Your task to perform on an android device: add a contact Image 0: 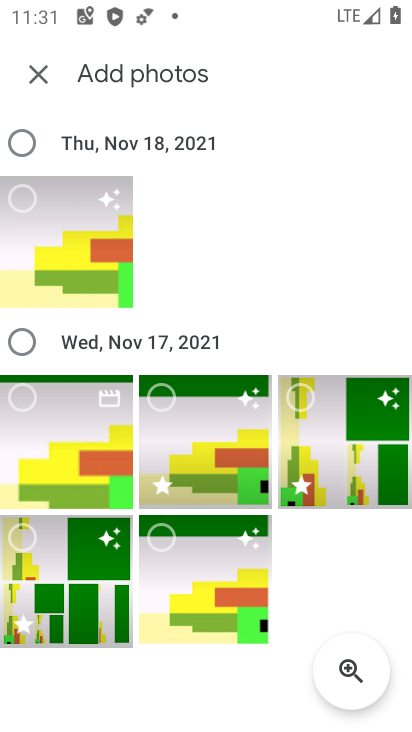
Step 0: press home button
Your task to perform on an android device: add a contact Image 1: 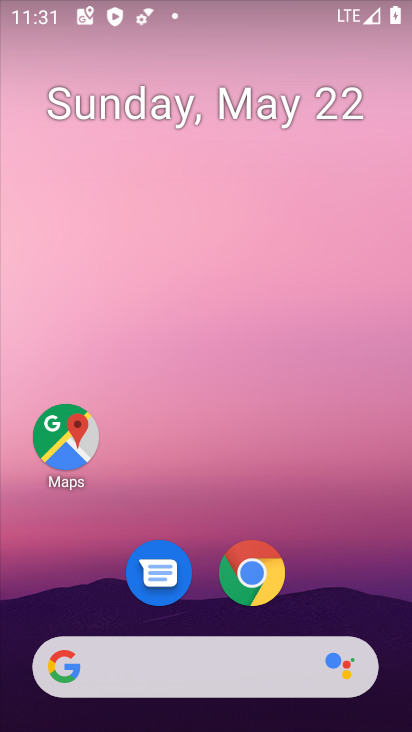
Step 1: drag from (212, 606) to (284, 108)
Your task to perform on an android device: add a contact Image 2: 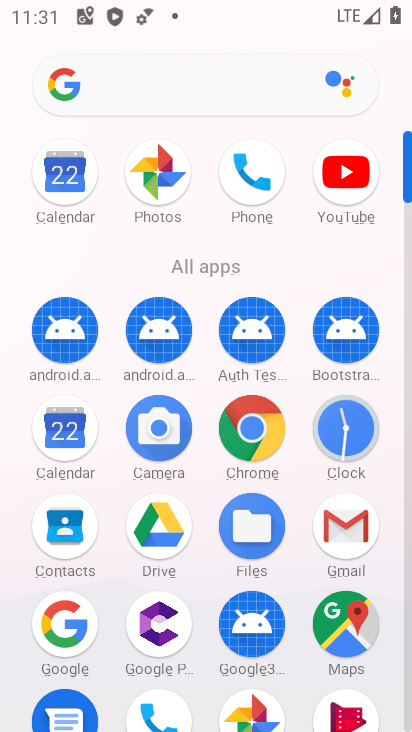
Step 2: click (59, 532)
Your task to perform on an android device: add a contact Image 3: 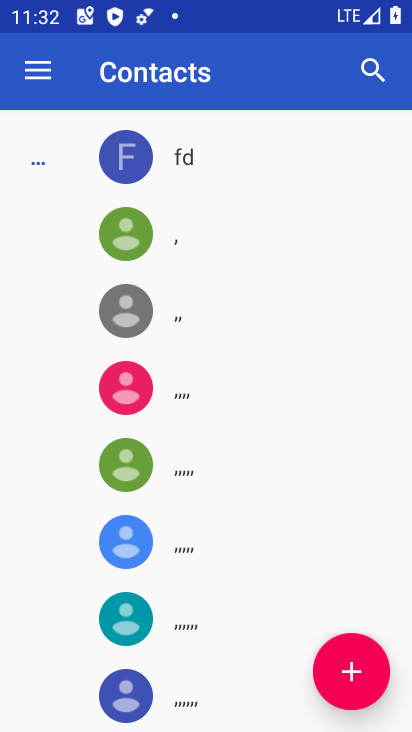
Step 3: click (343, 681)
Your task to perform on an android device: add a contact Image 4: 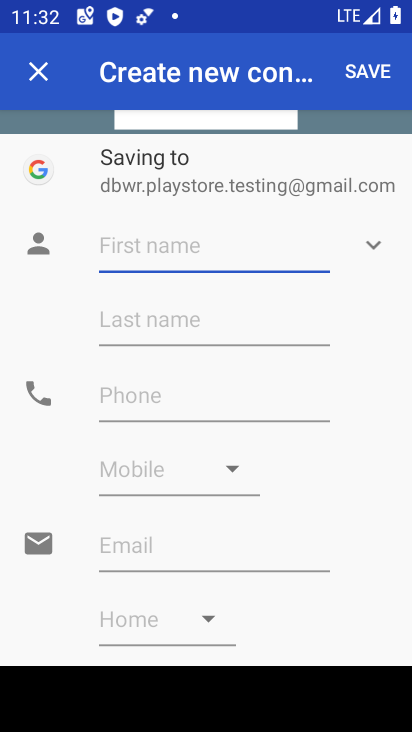
Step 4: type "zxcvbnm"
Your task to perform on an android device: add a contact Image 5: 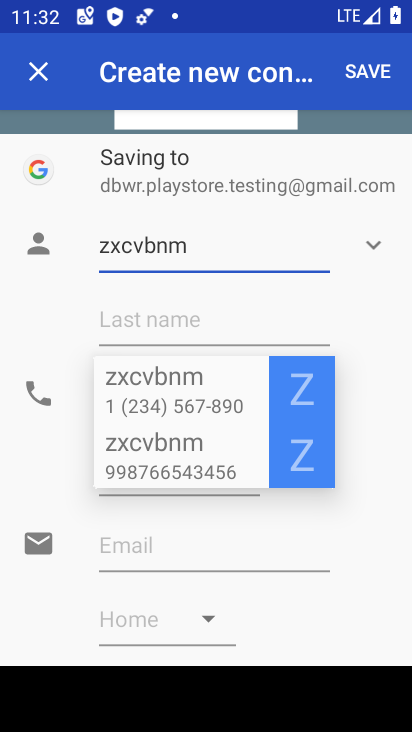
Step 5: click (81, 346)
Your task to perform on an android device: add a contact Image 6: 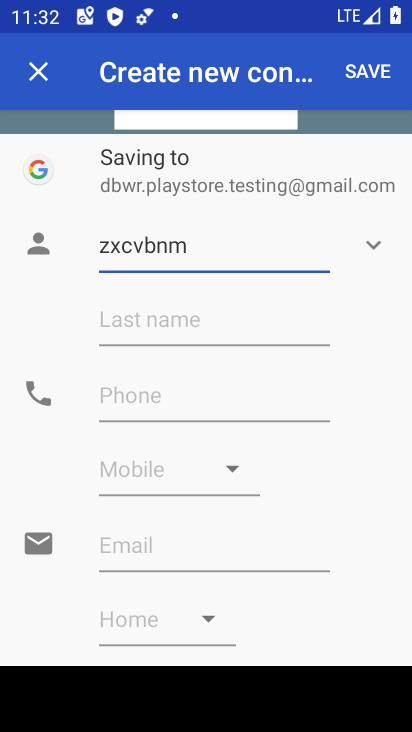
Step 6: click (176, 412)
Your task to perform on an android device: add a contact Image 7: 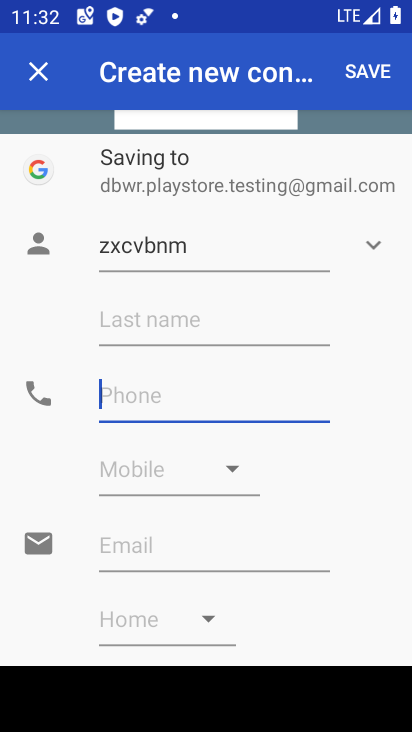
Step 7: type "9876543210"
Your task to perform on an android device: add a contact Image 8: 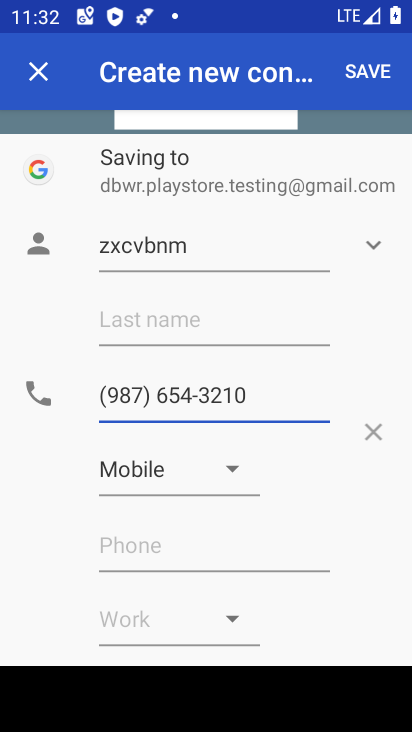
Step 8: click (383, 75)
Your task to perform on an android device: add a contact Image 9: 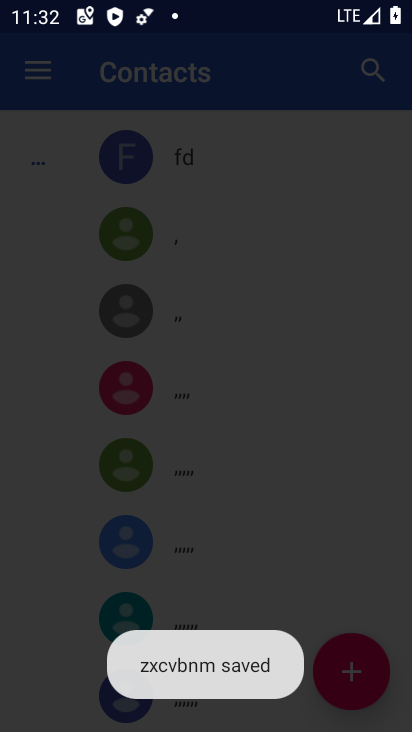
Step 9: task complete